Your task to perform on an android device: Search for vegetarian restaurants on Maps Image 0: 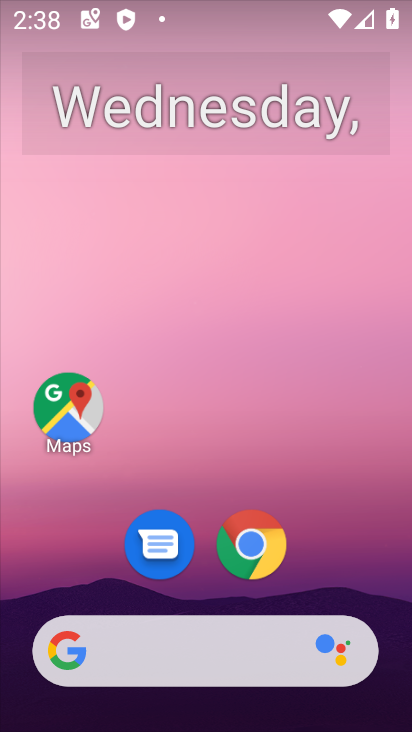
Step 0: drag from (385, 584) to (352, 177)
Your task to perform on an android device: Search for vegetarian restaurants on Maps Image 1: 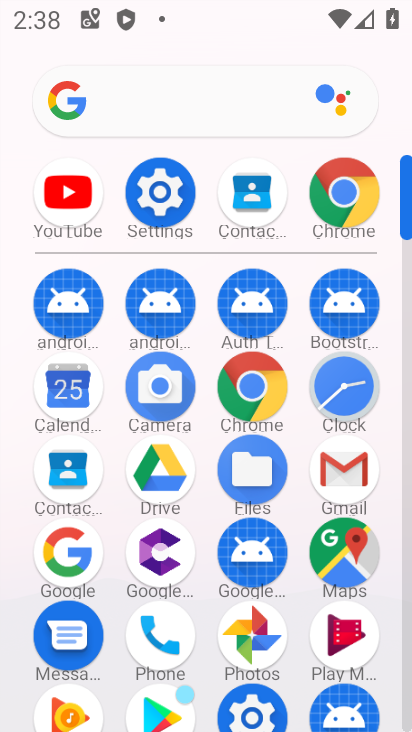
Step 1: click (339, 552)
Your task to perform on an android device: Search for vegetarian restaurants on Maps Image 2: 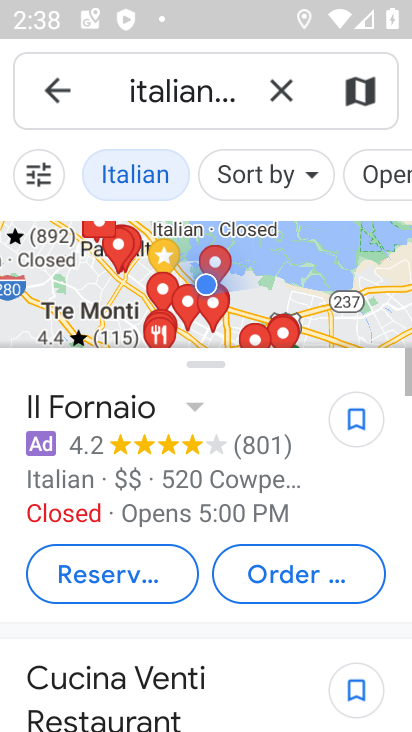
Step 2: click (278, 95)
Your task to perform on an android device: Search for vegetarian restaurants on Maps Image 3: 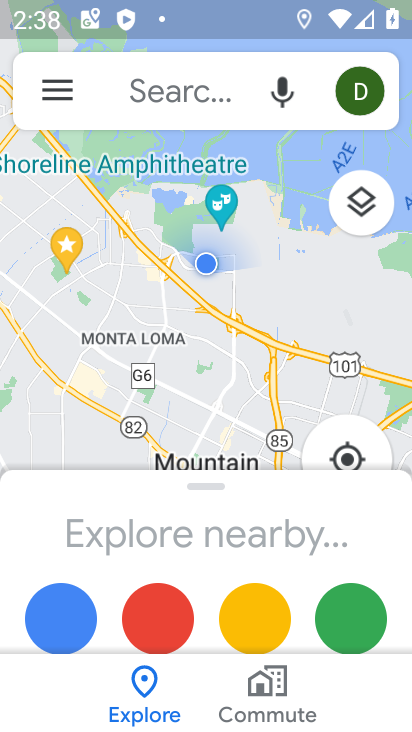
Step 3: click (166, 102)
Your task to perform on an android device: Search for vegetarian restaurants on Maps Image 4: 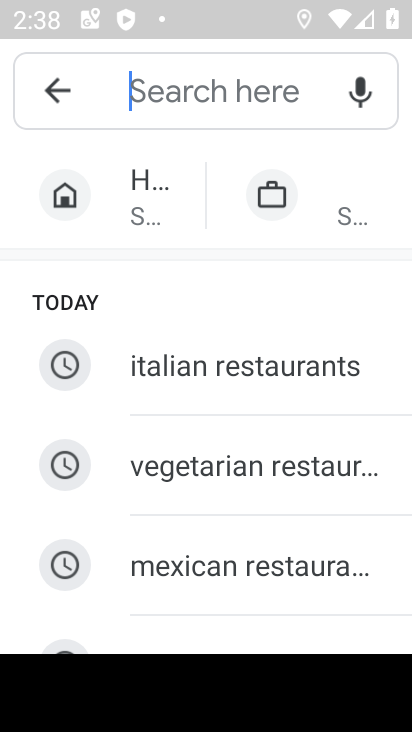
Step 4: click (304, 461)
Your task to perform on an android device: Search for vegetarian restaurants on Maps Image 5: 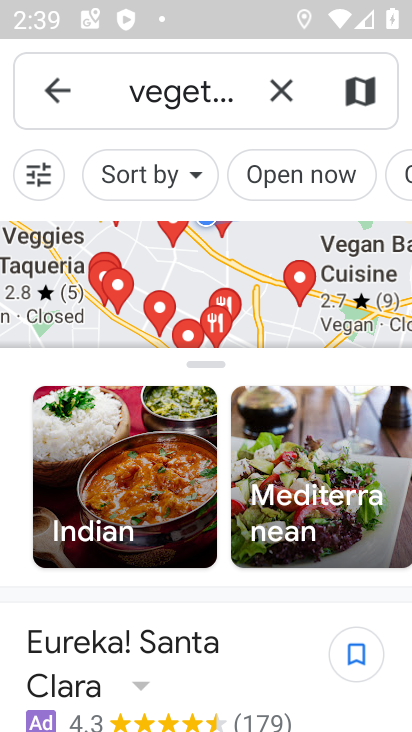
Step 5: task complete